Your task to perform on an android device: toggle notifications settings in the gmail app Image 0: 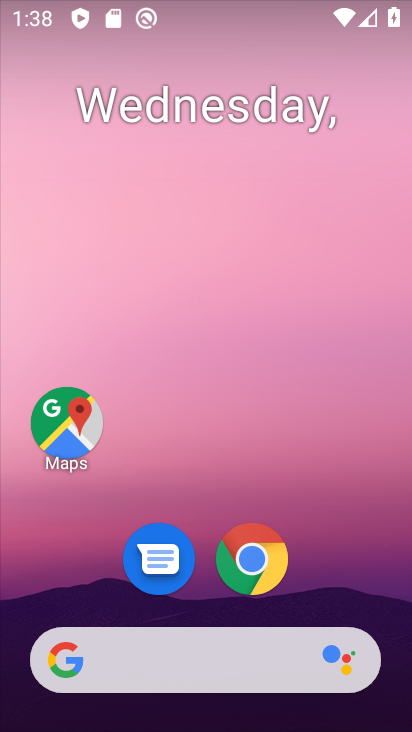
Step 0: drag from (197, 398) to (219, 13)
Your task to perform on an android device: toggle notifications settings in the gmail app Image 1: 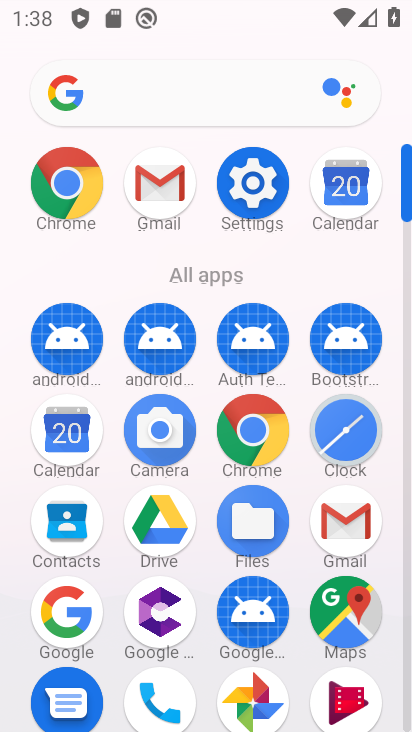
Step 1: click (158, 179)
Your task to perform on an android device: toggle notifications settings in the gmail app Image 2: 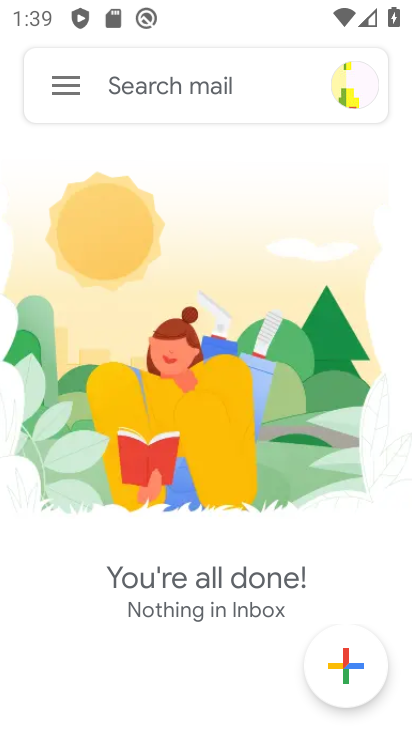
Step 2: click (70, 87)
Your task to perform on an android device: toggle notifications settings in the gmail app Image 3: 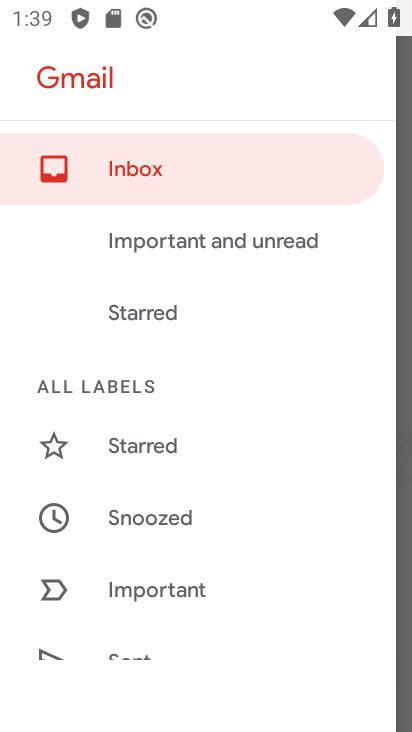
Step 3: drag from (207, 334) to (247, 37)
Your task to perform on an android device: toggle notifications settings in the gmail app Image 4: 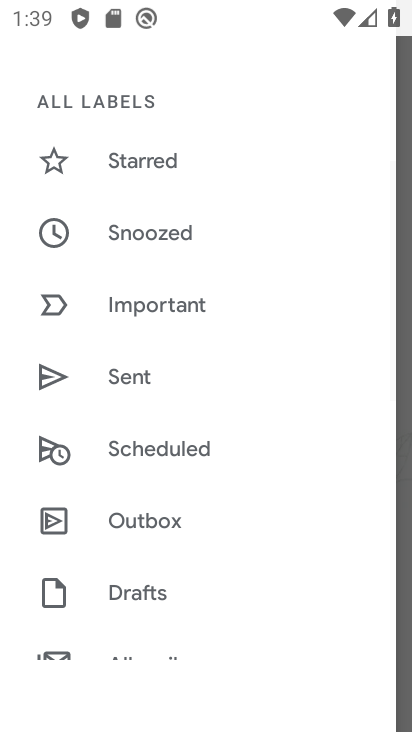
Step 4: drag from (204, 480) to (299, 14)
Your task to perform on an android device: toggle notifications settings in the gmail app Image 5: 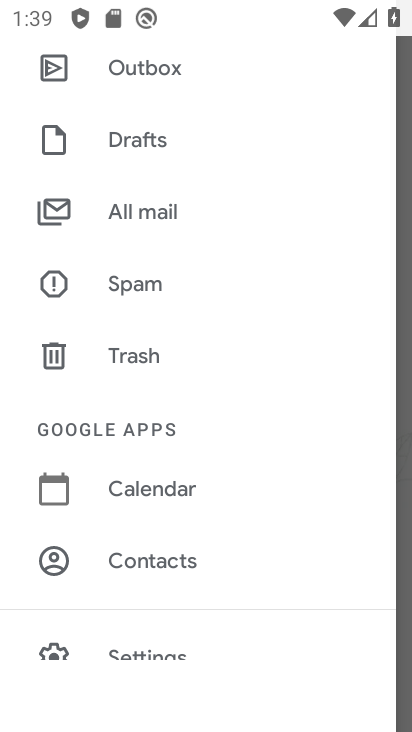
Step 5: click (153, 654)
Your task to perform on an android device: toggle notifications settings in the gmail app Image 6: 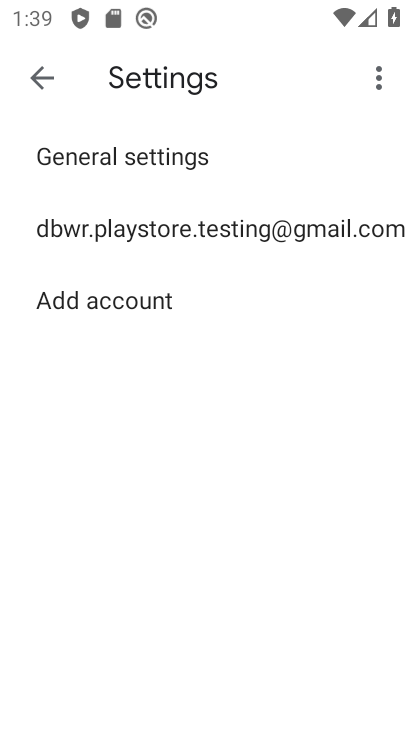
Step 6: task complete